Your task to perform on an android device: toggle javascript in the chrome app Image 0: 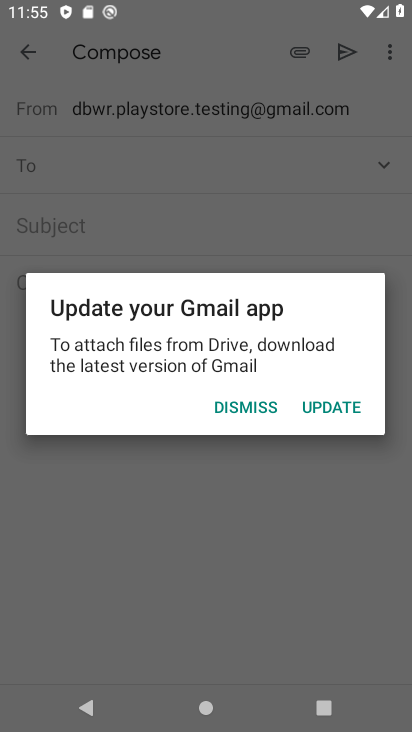
Step 0: click (241, 412)
Your task to perform on an android device: toggle javascript in the chrome app Image 1: 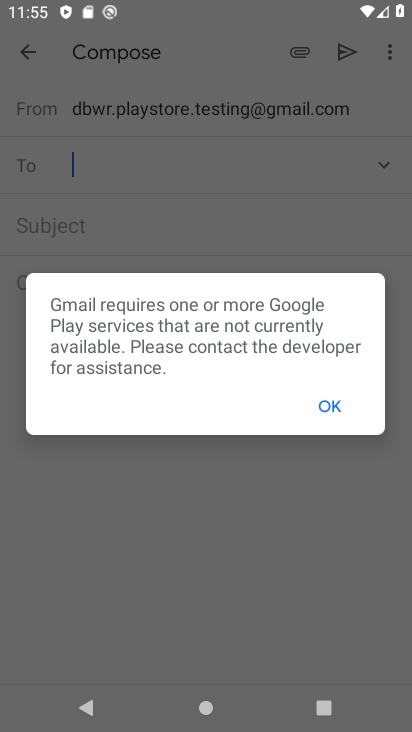
Step 1: press home button
Your task to perform on an android device: toggle javascript in the chrome app Image 2: 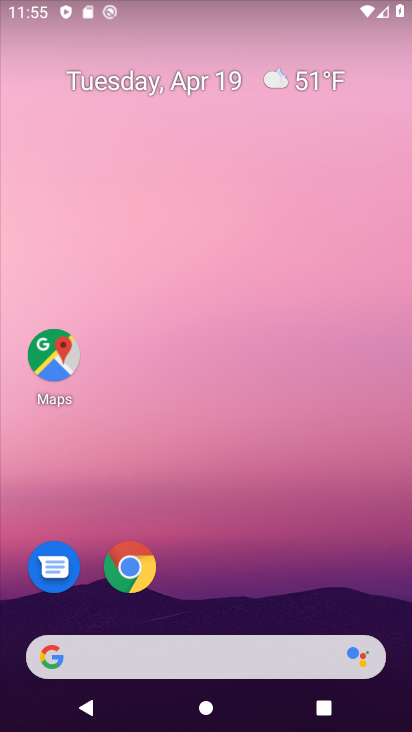
Step 2: click (135, 556)
Your task to perform on an android device: toggle javascript in the chrome app Image 3: 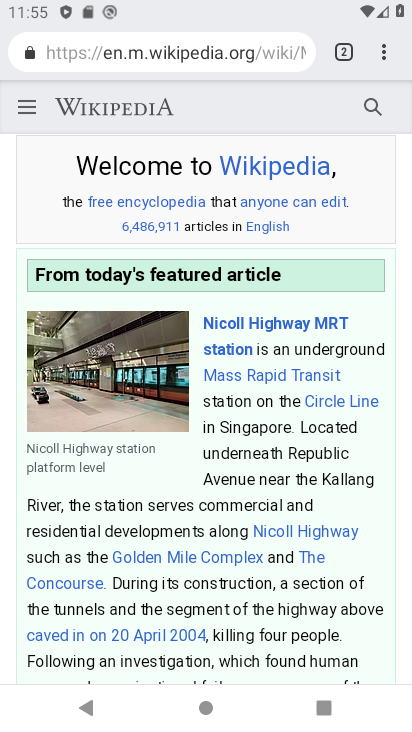
Step 3: click (385, 49)
Your task to perform on an android device: toggle javascript in the chrome app Image 4: 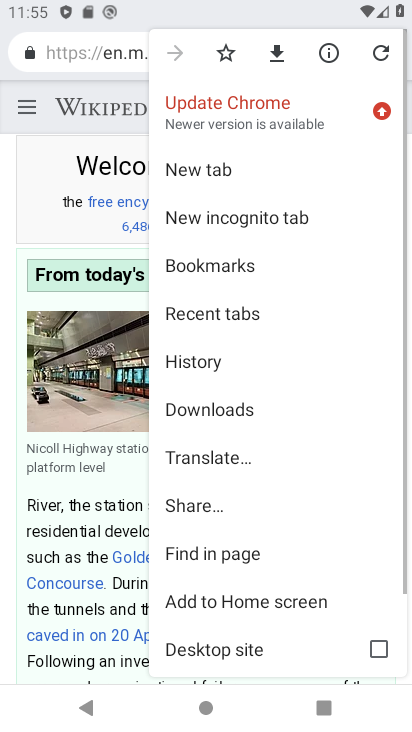
Step 4: drag from (253, 620) to (279, 306)
Your task to perform on an android device: toggle javascript in the chrome app Image 5: 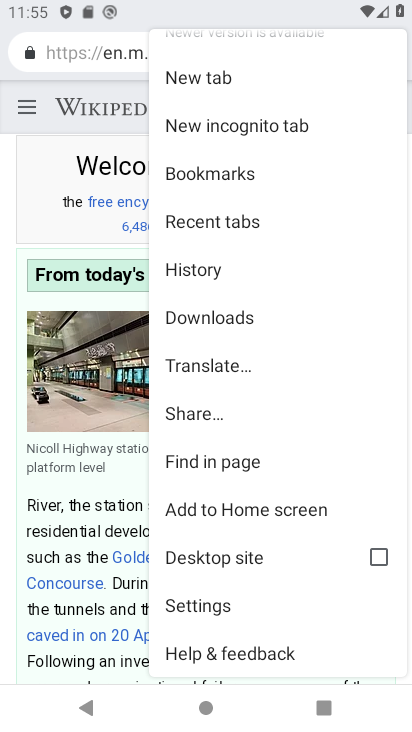
Step 5: click (209, 612)
Your task to perform on an android device: toggle javascript in the chrome app Image 6: 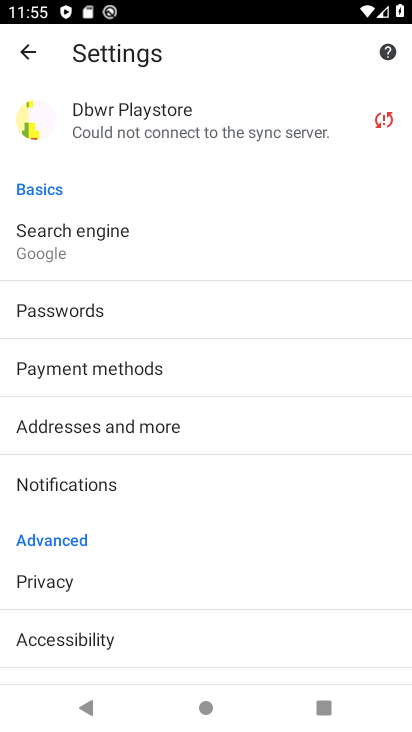
Step 6: drag from (185, 590) to (208, 139)
Your task to perform on an android device: toggle javascript in the chrome app Image 7: 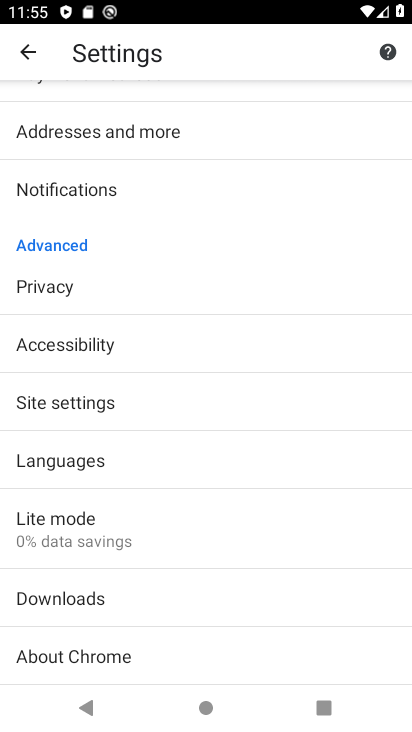
Step 7: click (72, 401)
Your task to perform on an android device: toggle javascript in the chrome app Image 8: 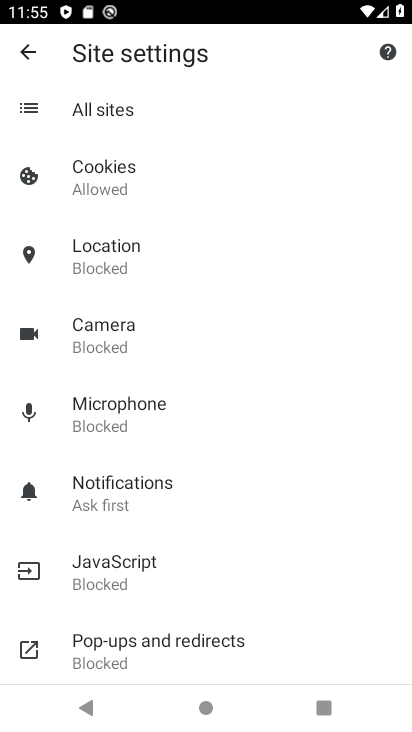
Step 8: click (117, 574)
Your task to perform on an android device: toggle javascript in the chrome app Image 9: 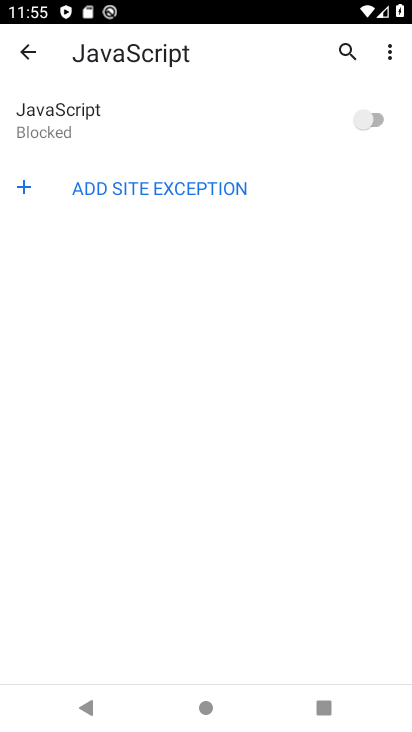
Step 9: click (371, 117)
Your task to perform on an android device: toggle javascript in the chrome app Image 10: 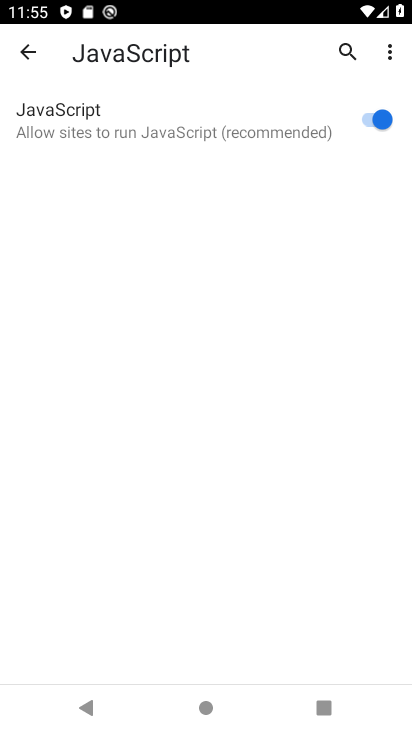
Step 10: task complete